Your task to perform on an android device: star an email in the gmail app Image 0: 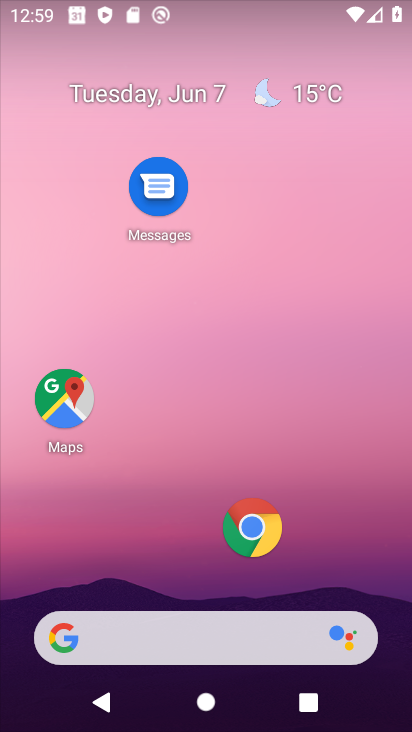
Step 0: drag from (198, 572) to (192, 352)
Your task to perform on an android device: star an email in the gmail app Image 1: 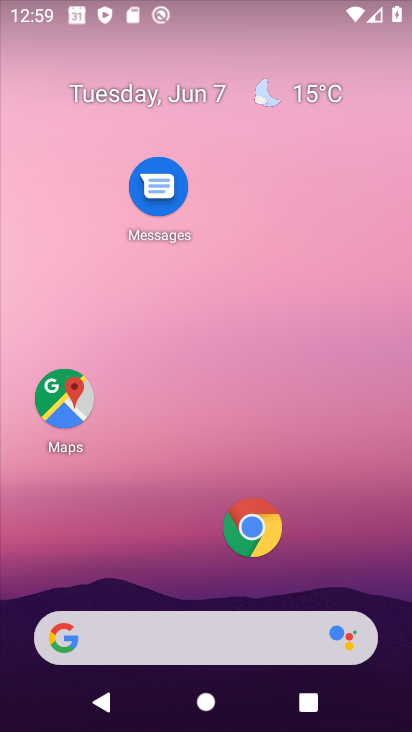
Step 1: drag from (192, 617) to (184, 291)
Your task to perform on an android device: star an email in the gmail app Image 2: 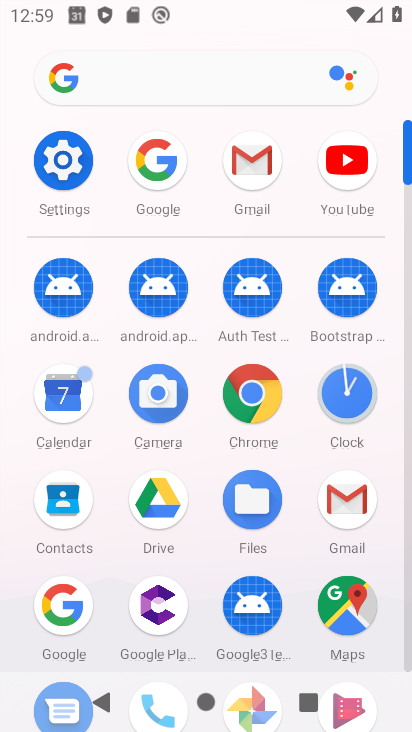
Step 2: click (342, 506)
Your task to perform on an android device: star an email in the gmail app Image 3: 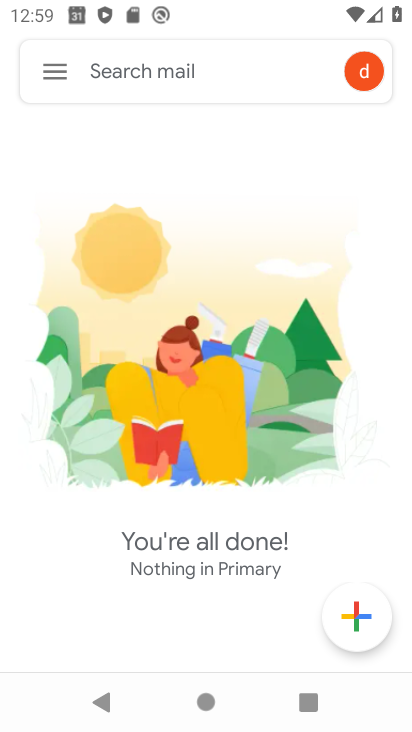
Step 3: click (64, 68)
Your task to perform on an android device: star an email in the gmail app Image 4: 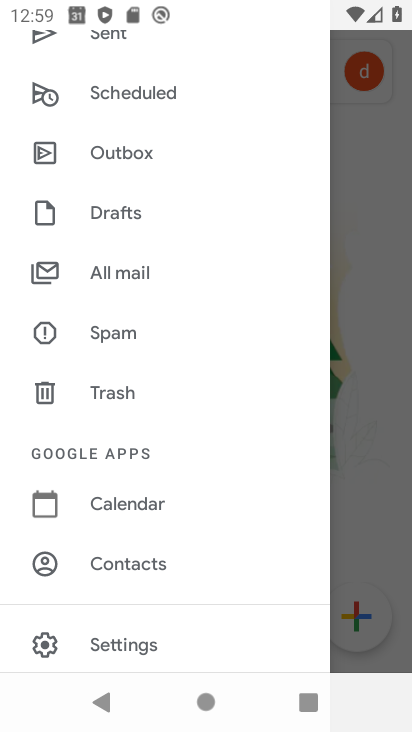
Step 4: drag from (111, 142) to (110, 603)
Your task to perform on an android device: star an email in the gmail app Image 5: 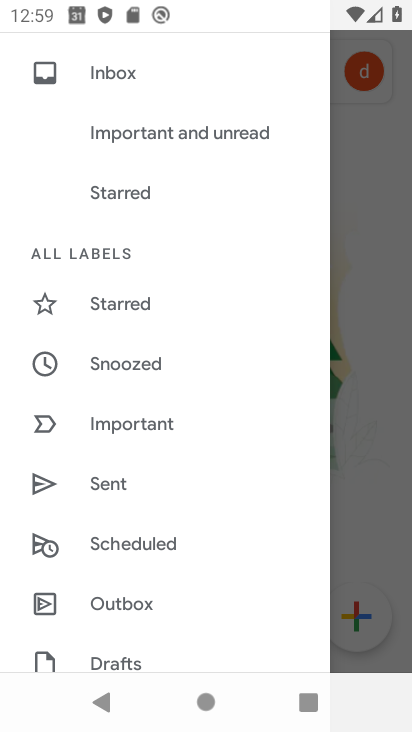
Step 5: click (129, 74)
Your task to perform on an android device: star an email in the gmail app Image 6: 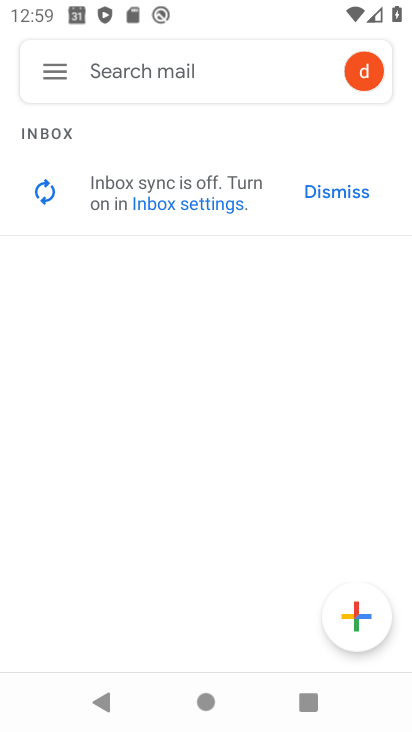
Step 6: task complete